Your task to perform on an android device: star an email in the gmail app Image 0: 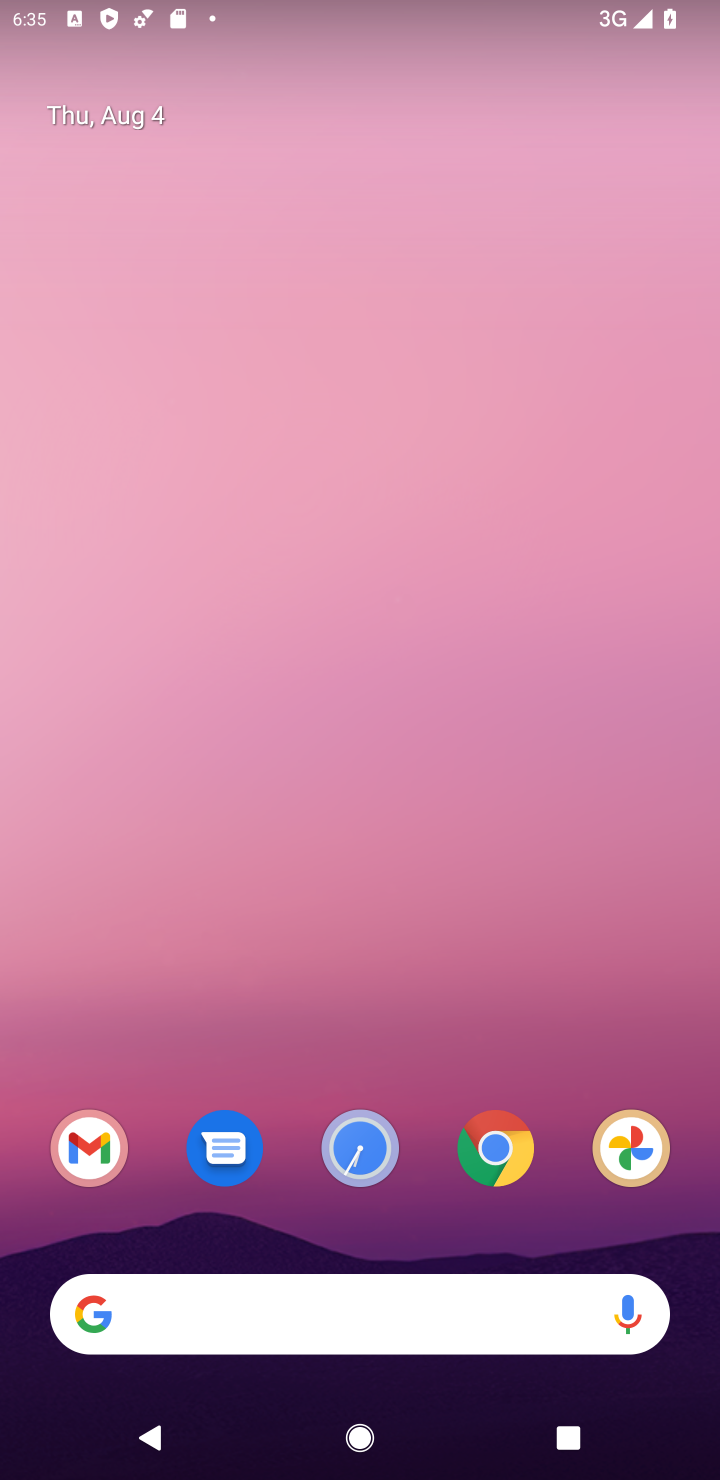
Step 0: click (83, 1148)
Your task to perform on an android device: star an email in the gmail app Image 1: 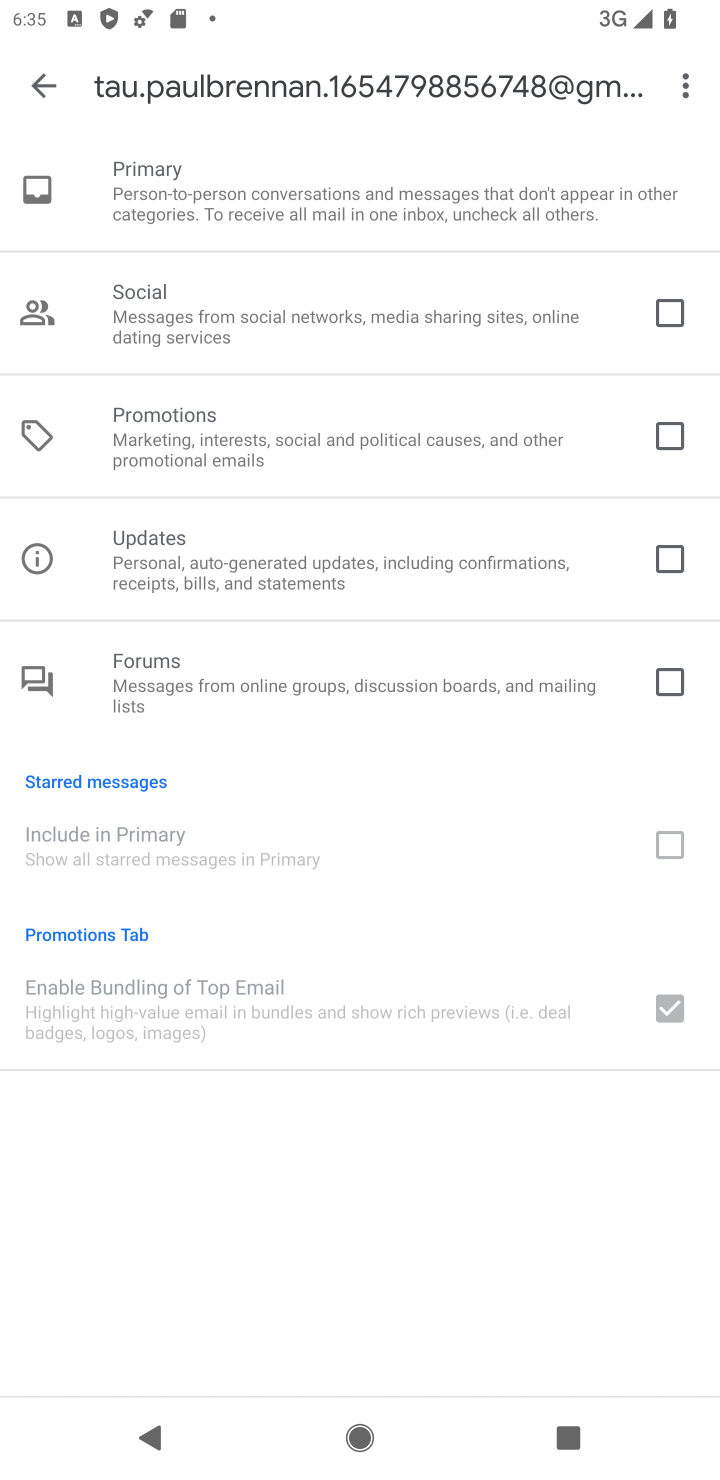
Step 1: press back button
Your task to perform on an android device: star an email in the gmail app Image 2: 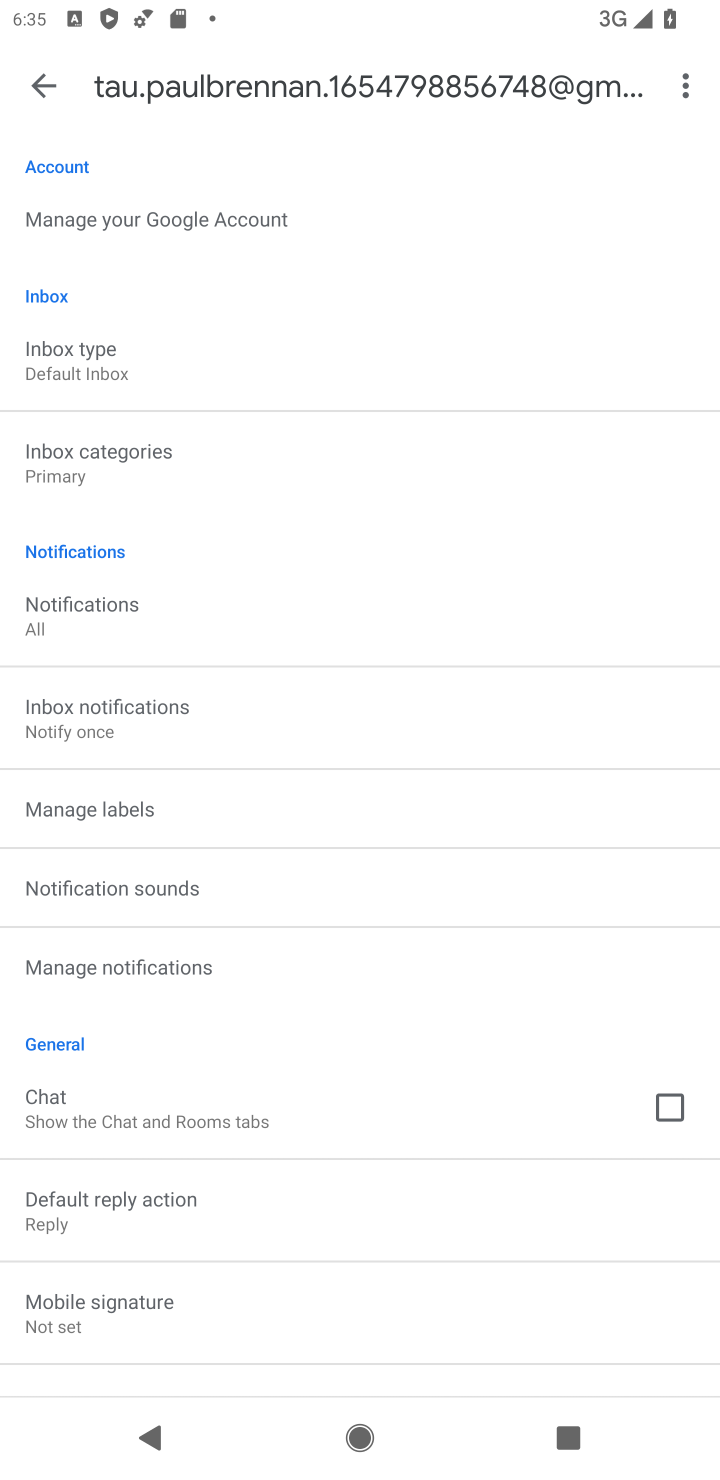
Step 2: press back button
Your task to perform on an android device: star an email in the gmail app Image 3: 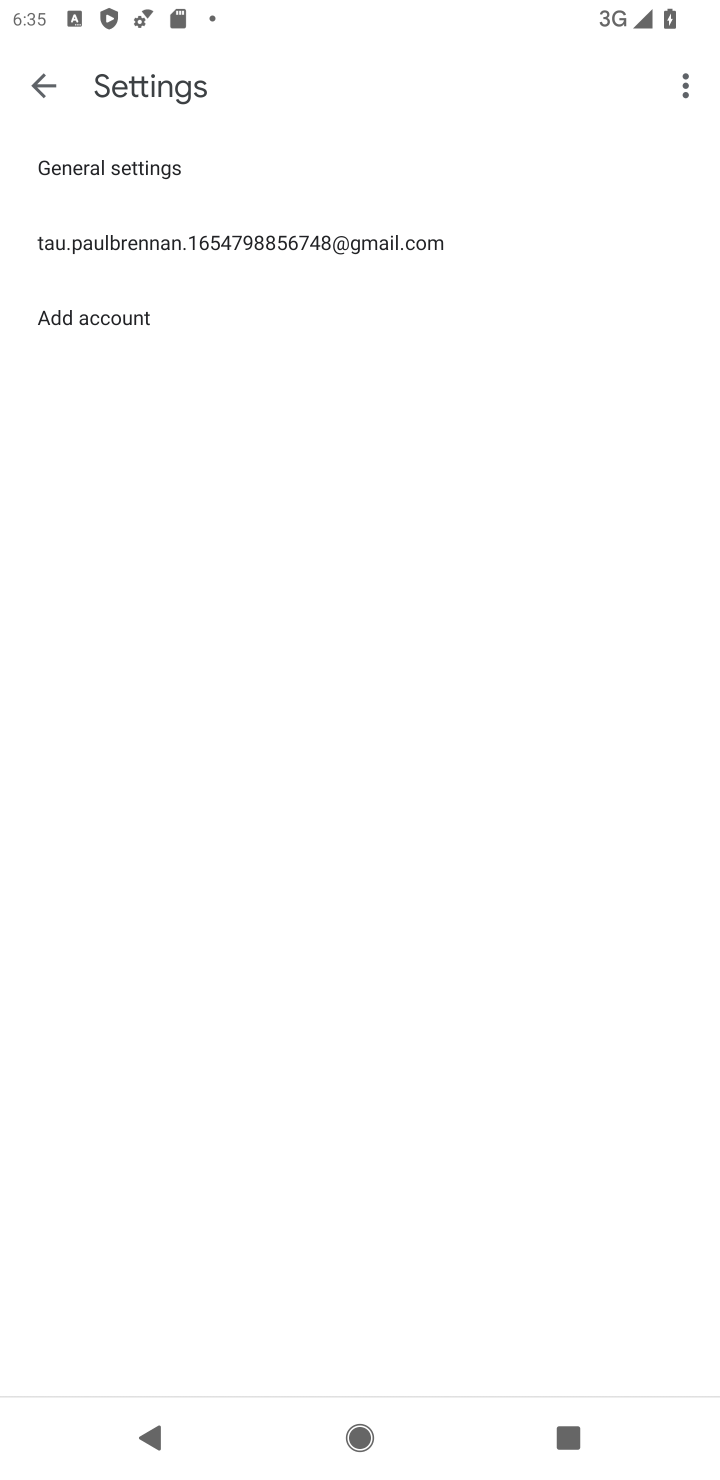
Step 3: press back button
Your task to perform on an android device: star an email in the gmail app Image 4: 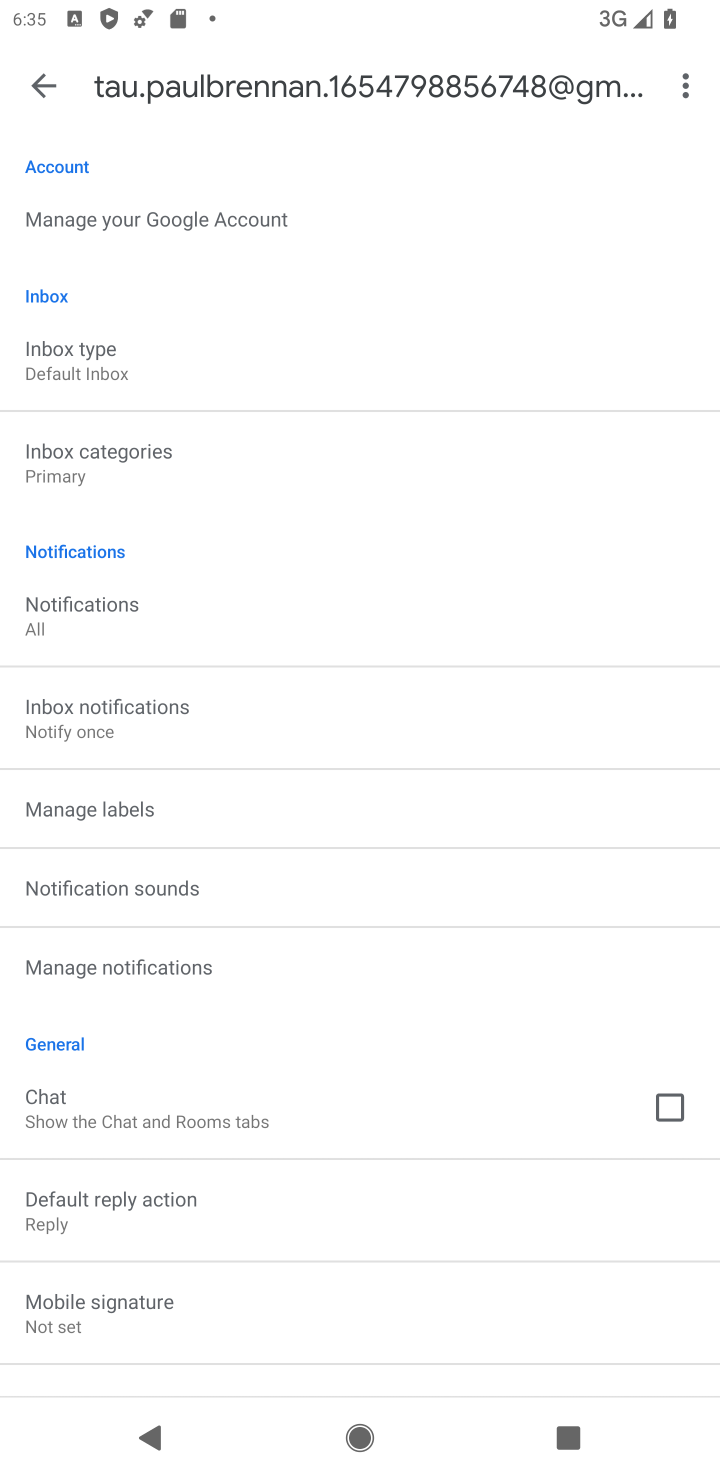
Step 4: press back button
Your task to perform on an android device: star an email in the gmail app Image 5: 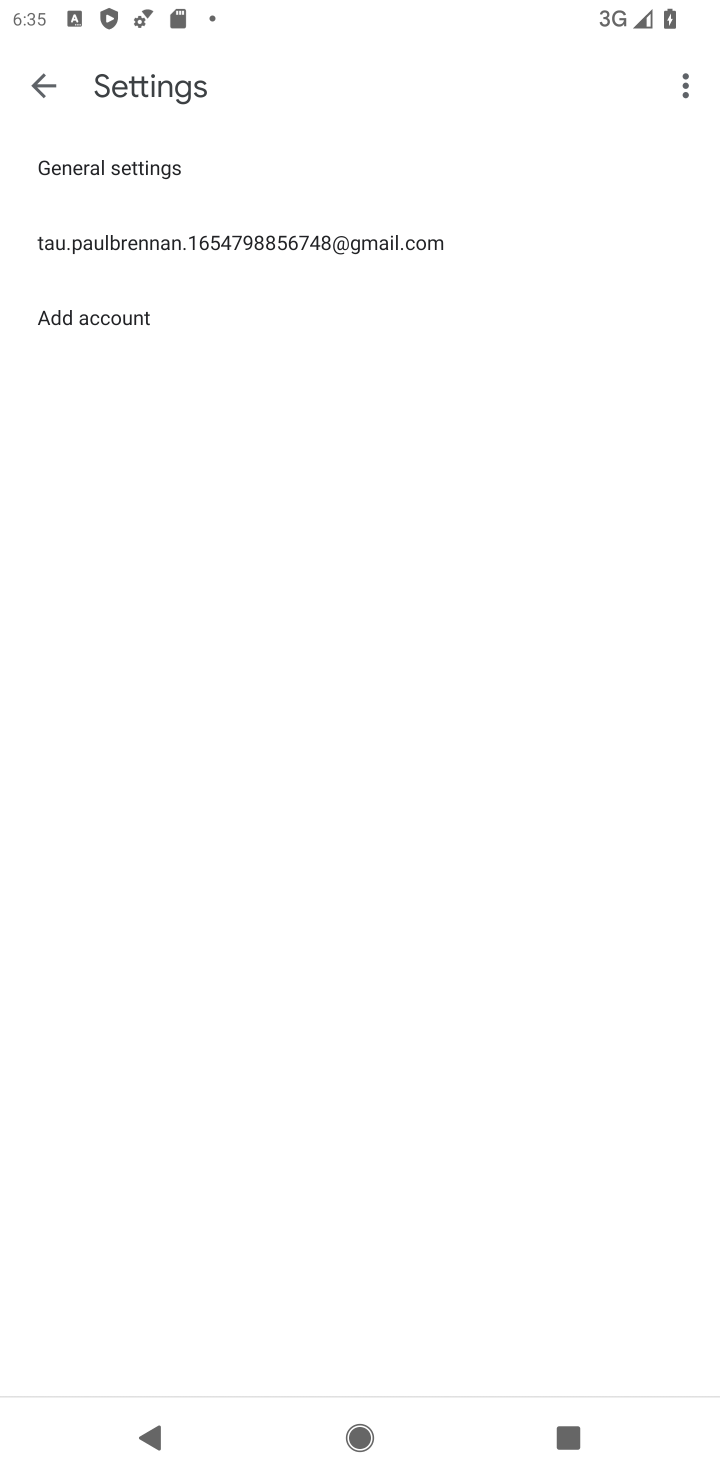
Step 5: press back button
Your task to perform on an android device: star an email in the gmail app Image 6: 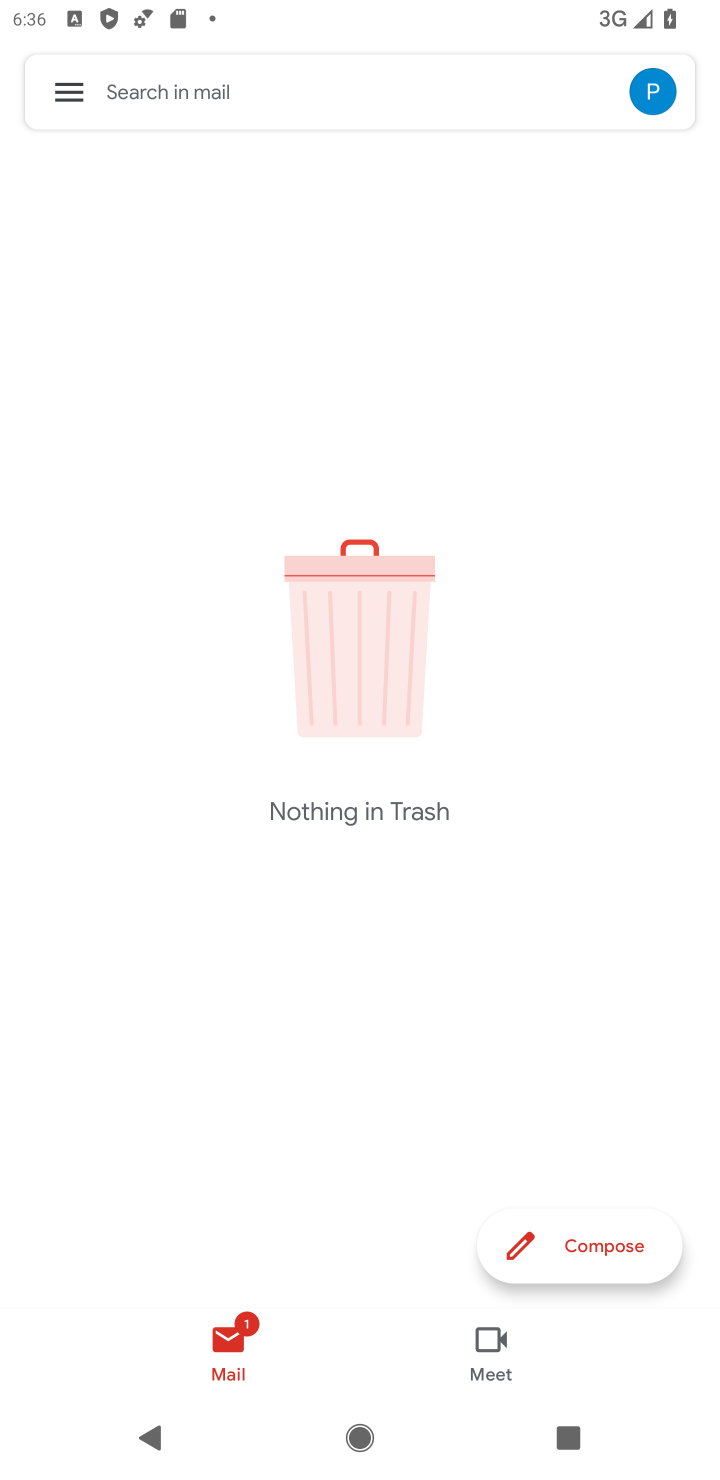
Step 6: click (56, 93)
Your task to perform on an android device: star an email in the gmail app Image 7: 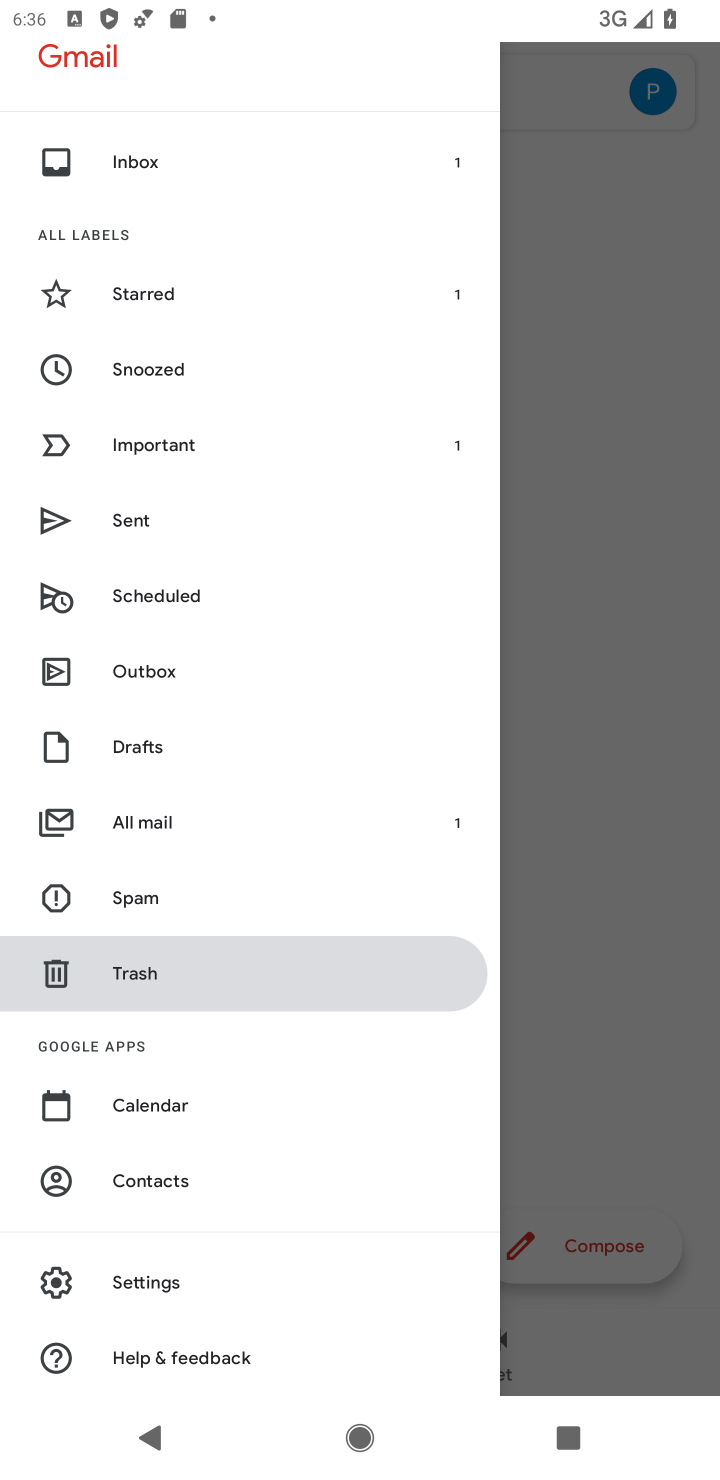
Step 7: click (134, 817)
Your task to perform on an android device: star an email in the gmail app Image 8: 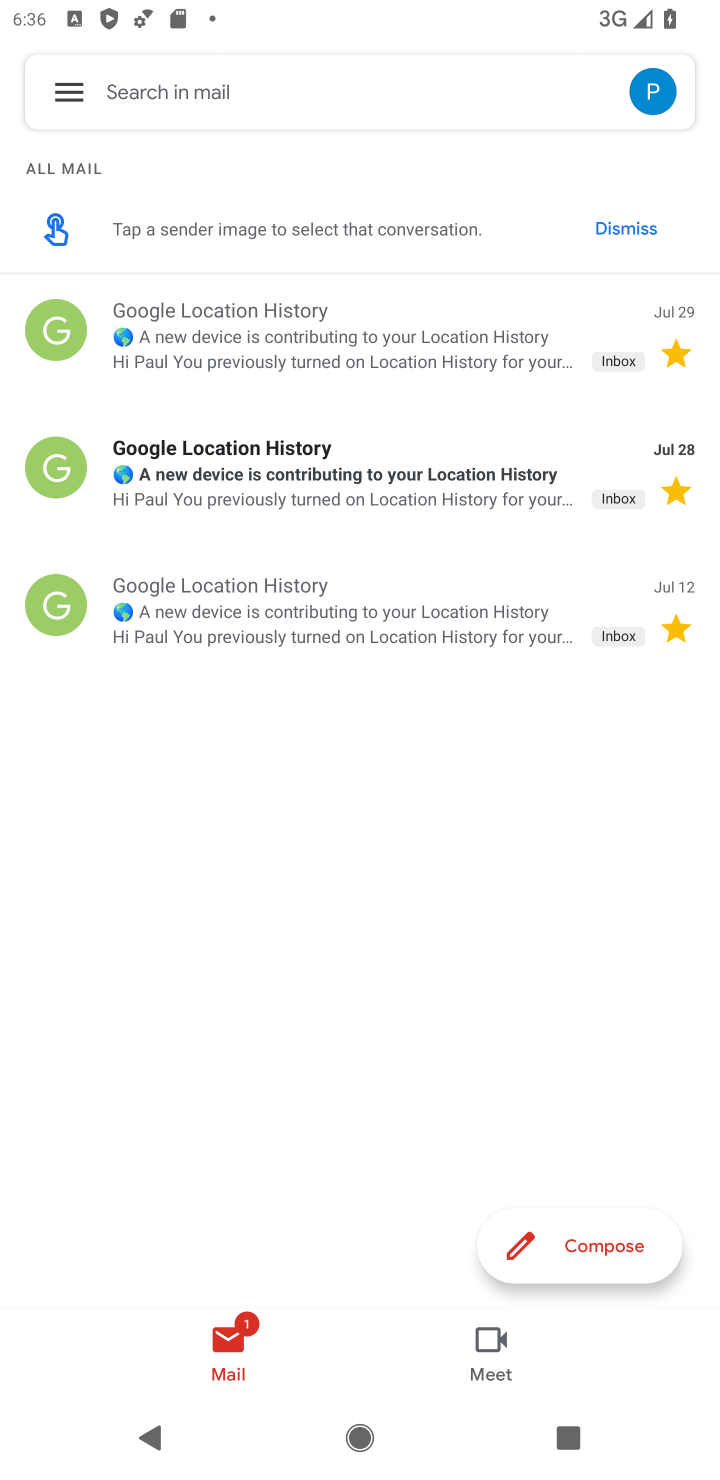
Step 8: task complete